Your task to perform on an android device: create a new album in the google photos Image 0: 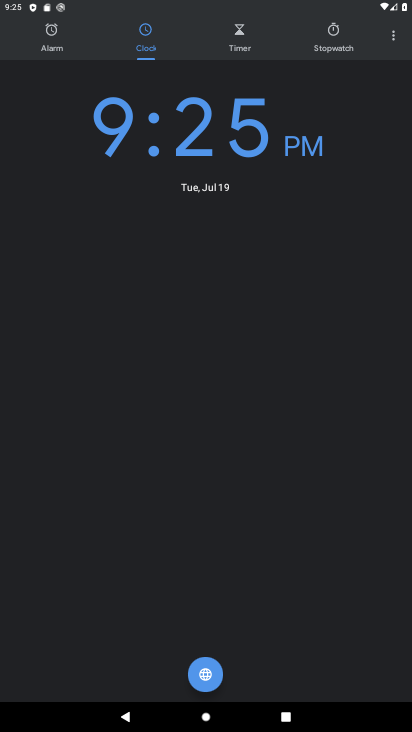
Step 0: press home button
Your task to perform on an android device: create a new album in the google photos Image 1: 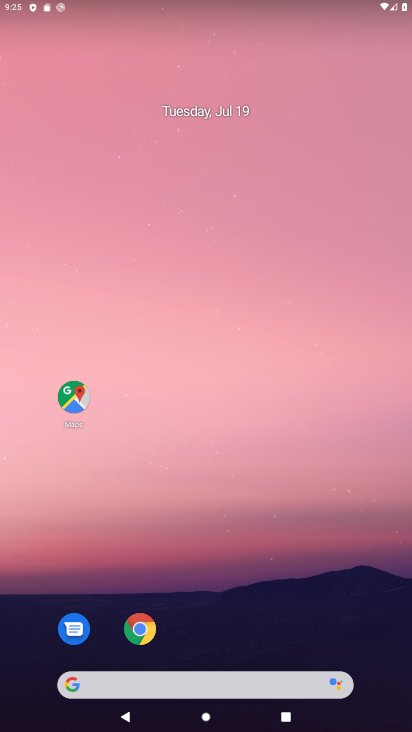
Step 1: drag from (254, 538) to (282, 260)
Your task to perform on an android device: create a new album in the google photos Image 2: 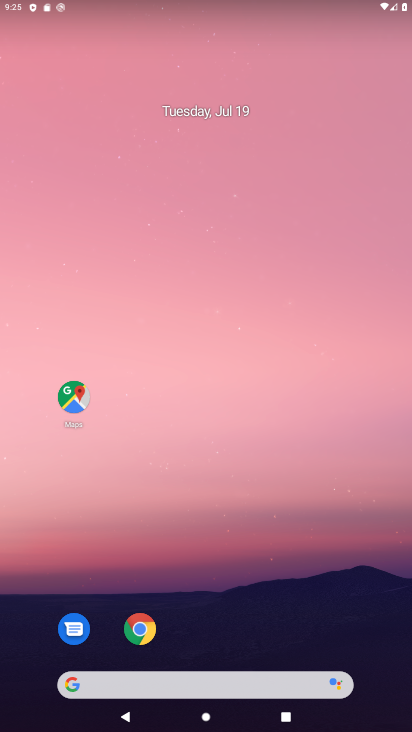
Step 2: drag from (236, 620) to (231, 168)
Your task to perform on an android device: create a new album in the google photos Image 3: 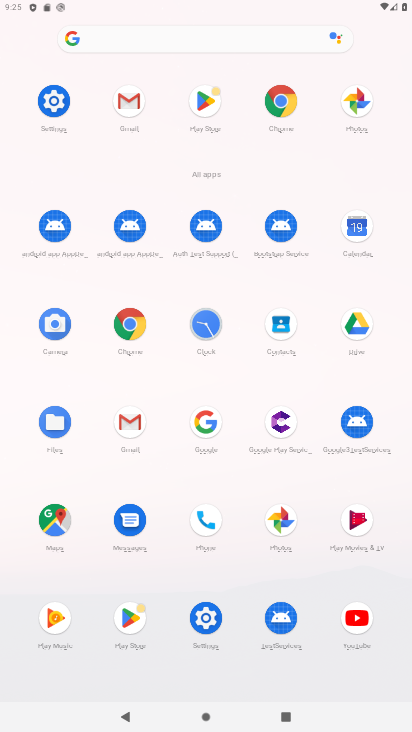
Step 3: click (276, 520)
Your task to perform on an android device: create a new album in the google photos Image 4: 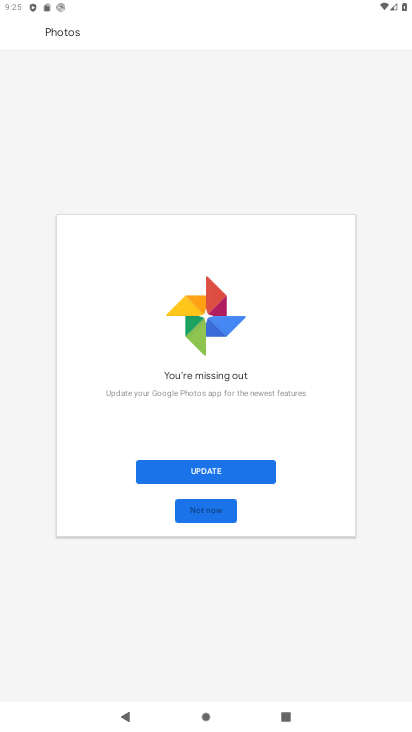
Step 4: click (194, 465)
Your task to perform on an android device: create a new album in the google photos Image 5: 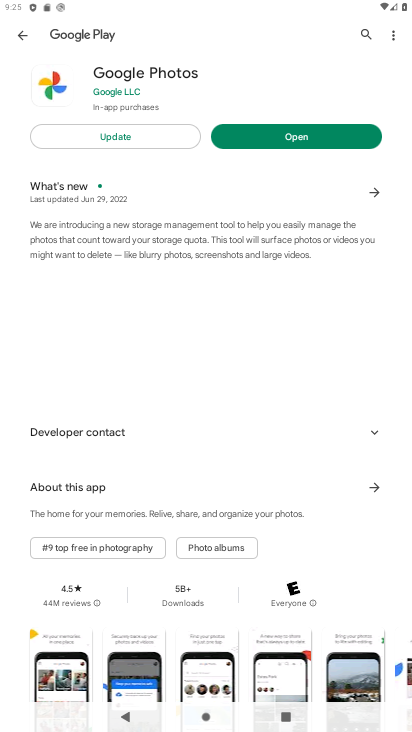
Step 5: click (129, 138)
Your task to perform on an android device: create a new album in the google photos Image 6: 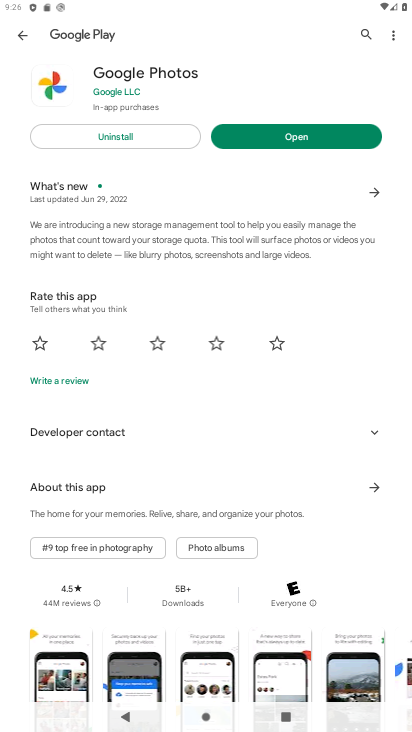
Step 6: click (290, 142)
Your task to perform on an android device: create a new album in the google photos Image 7: 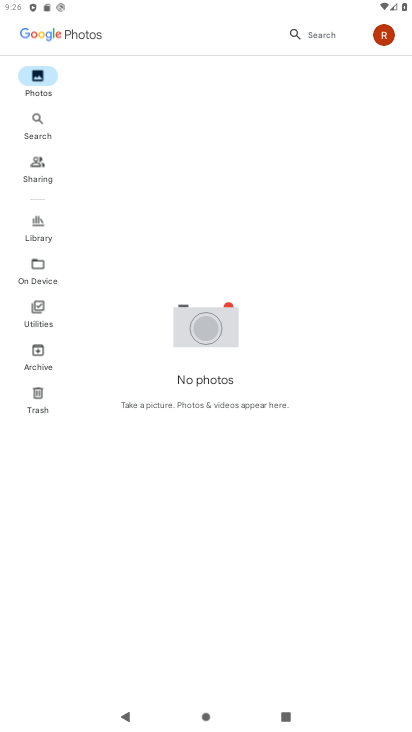
Step 7: task complete